Your task to perform on an android device: manage bookmarks in the chrome app Image 0: 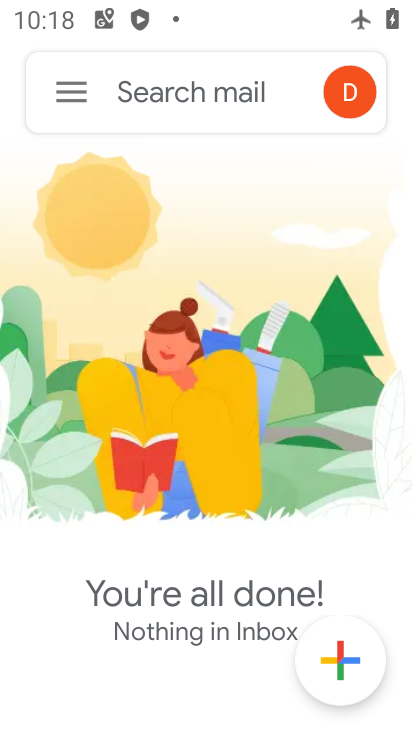
Step 0: press home button
Your task to perform on an android device: manage bookmarks in the chrome app Image 1: 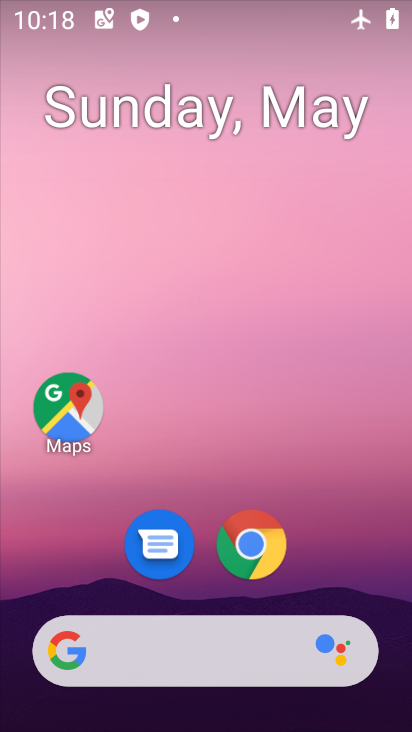
Step 1: click (244, 541)
Your task to perform on an android device: manage bookmarks in the chrome app Image 2: 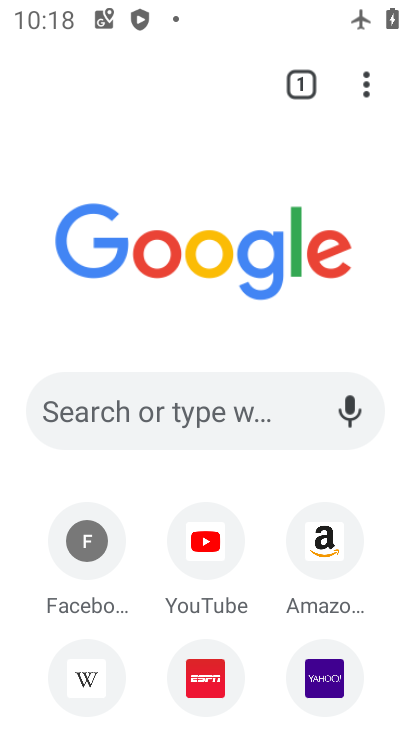
Step 2: click (373, 68)
Your task to perform on an android device: manage bookmarks in the chrome app Image 3: 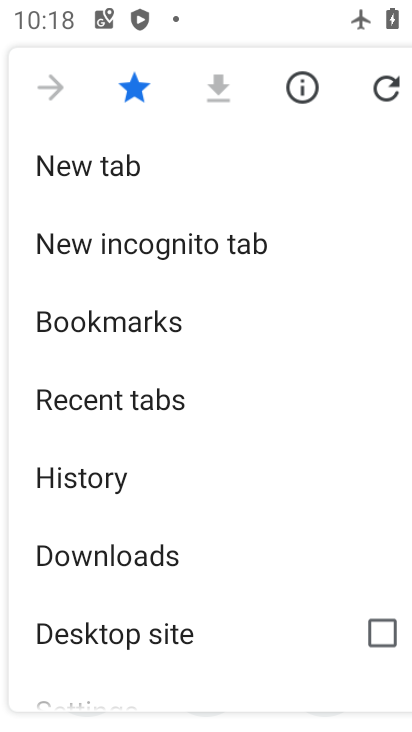
Step 3: click (126, 332)
Your task to perform on an android device: manage bookmarks in the chrome app Image 4: 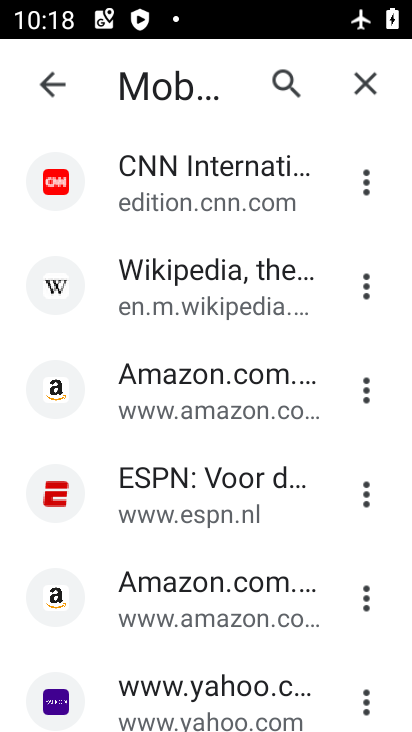
Step 4: click (146, 375)
Your task to perform on an android device: manage bookmarks in the chrome app Image 5: 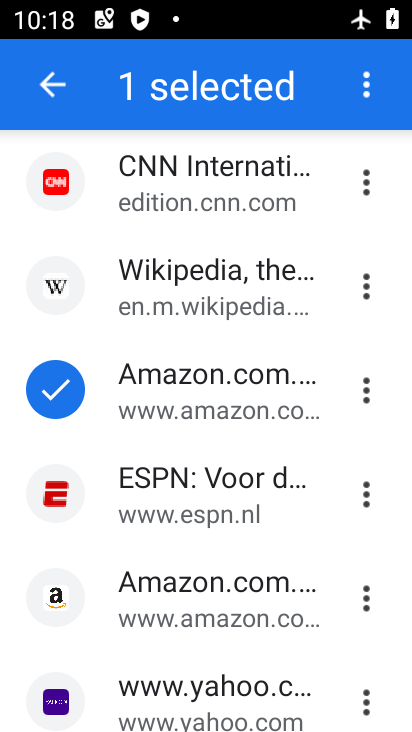
Step 5: click (64, 387)
Your task to perform on an android device: manage bookmarks in the chrome app Image 6: 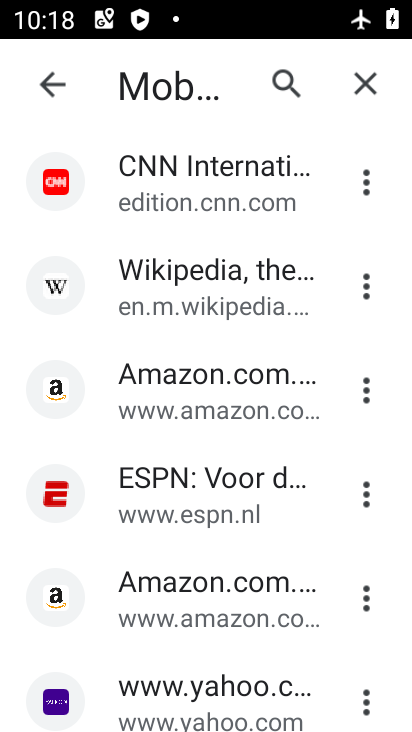
Step 6: click (132, 394)
Your task to perform on an android device: manage bookmarks in the chrome app Image 7: 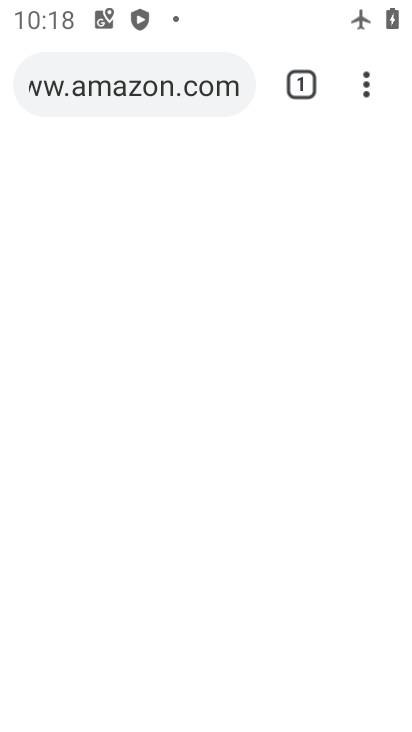
Step 7: click (194, 397)
Your task to perform on an android device: manage bookmarks in the chrome app Image 8: 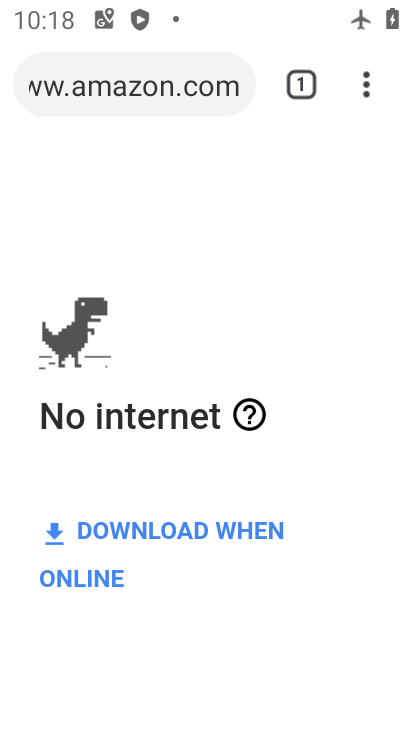
Step 8: click (356, 93)
Your task to perform on an android device: manage bookmarks in the chrome app Image 9: 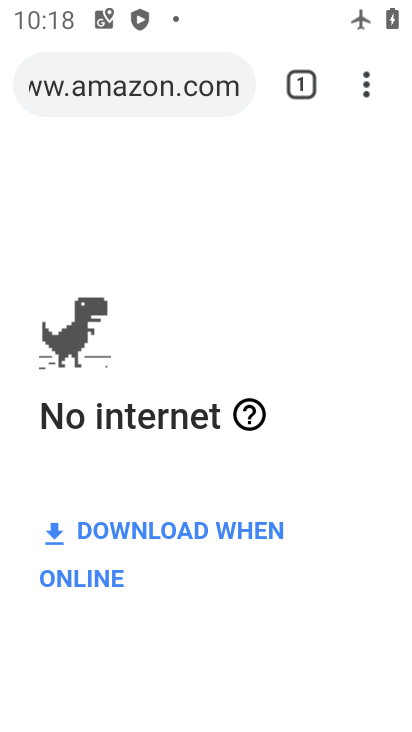
Step 9: click (378, 69)
Your task to perform on an android device: manage bookmarks in the chrome app Image 10: 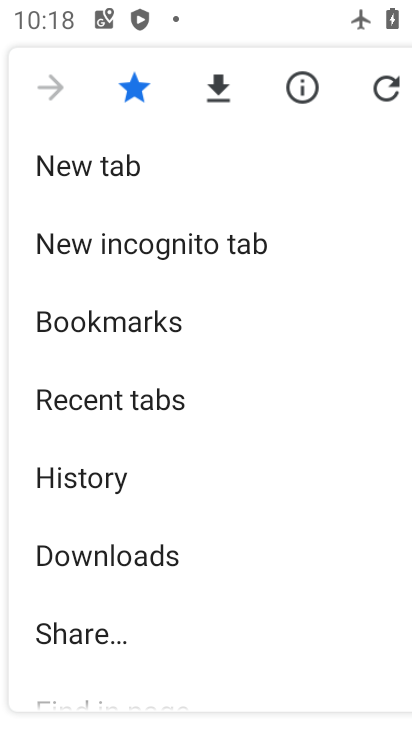
Step 10: click (155, 301)
Your task to perform on an android device: manage bookmarks in the chrome app Image 11: 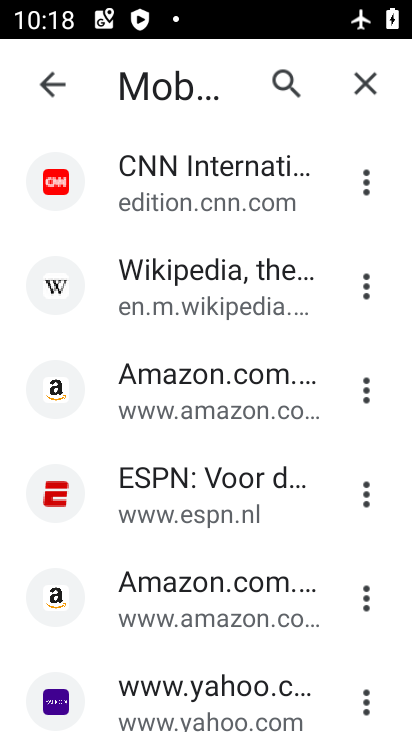
Step 11: click (205, 185)
Your task to perform on an android device: manage bookmarks in the chrome app Image 12: 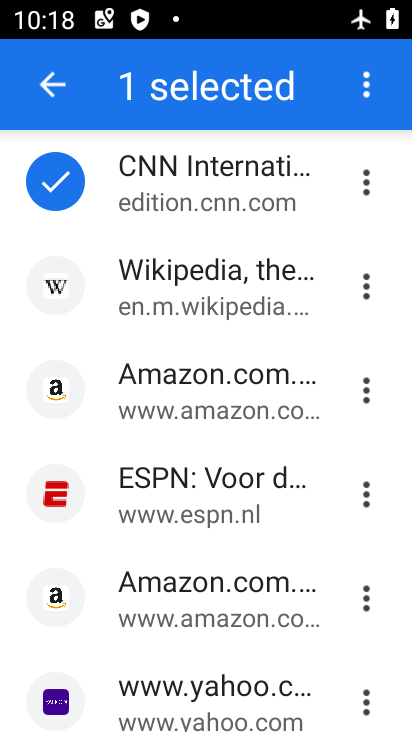
Step 12: click (347, 72)
Your task to perform on an android device: manage bookmarks in the chrome app Image 13: 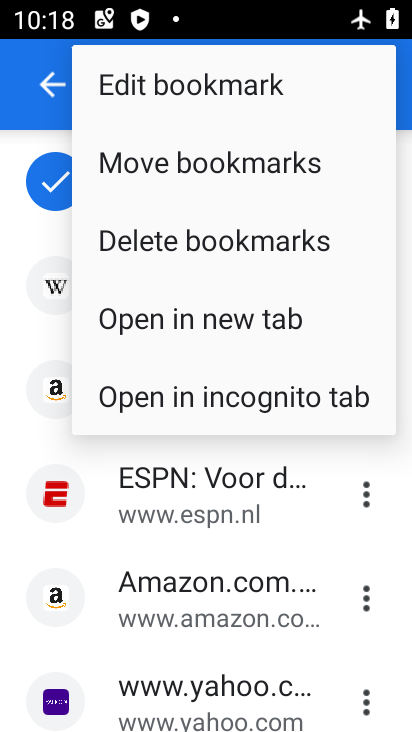
Step 13: click (177, 160)
Your task to perform on an android device: manage bookmarks in the chrome app Image 14: 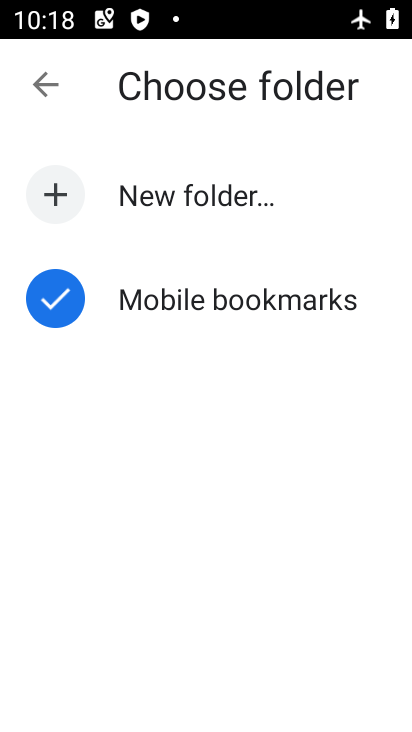
Step 14: click (179, 178)
Your task to perform on an android device: manage bookmarks in the chrome app Image 15: 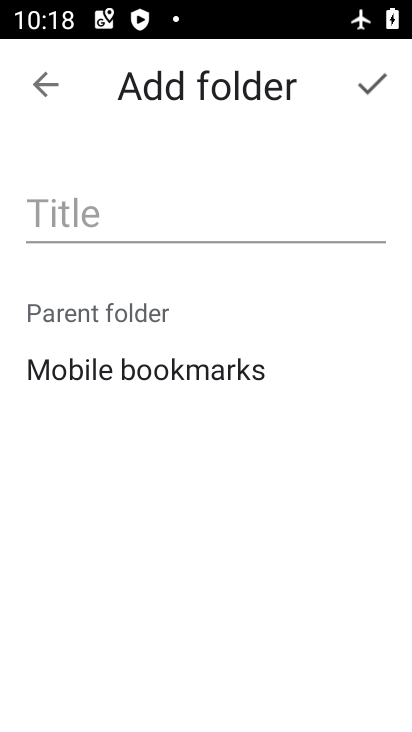
Step 15: click (70, 227)
Your task to perform on an android device: manage bookmarks in the chrome app Image 16: 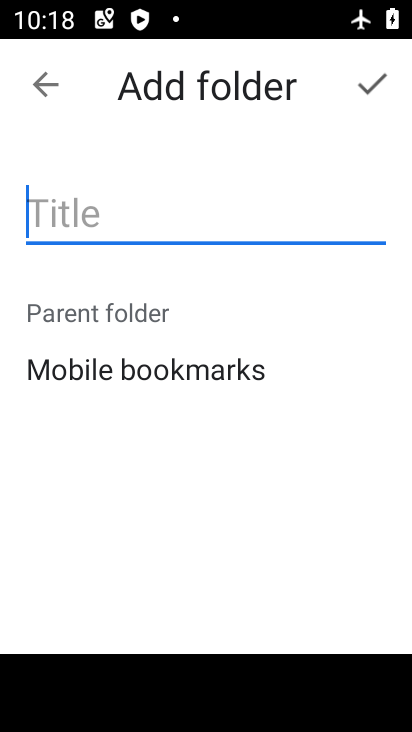
Step 16: type "ujhjhj"
Your task to perform on an android device: manage bookmarks in the chrome app Image 17: 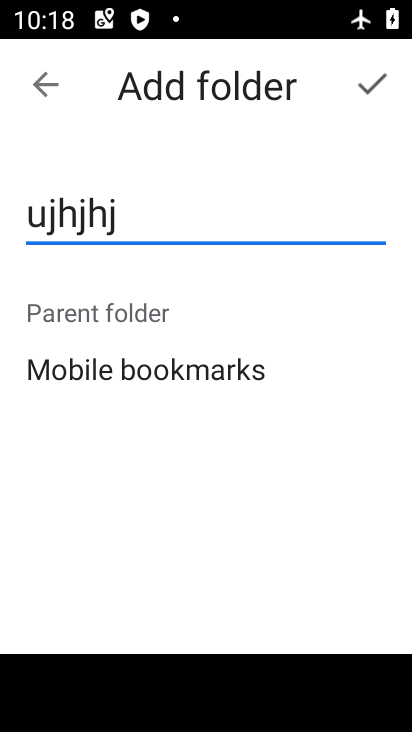
Step 17: click (364, 70)
Your task to perform on an android device: manage bookmarks in the chrome app Image 18: 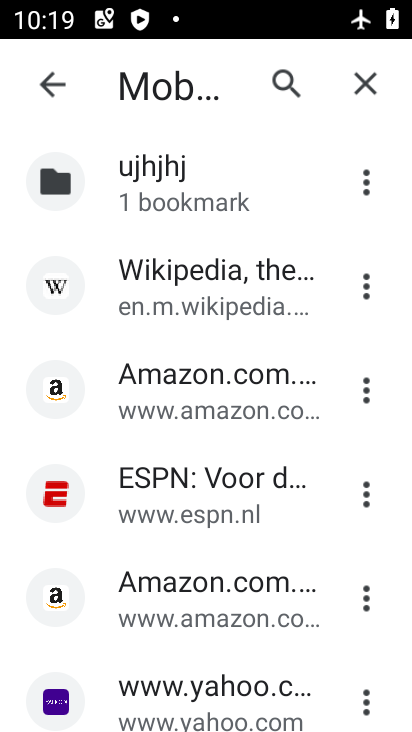
Step 18: task complete